Your task to perform on an android device: set the timer Image 0: 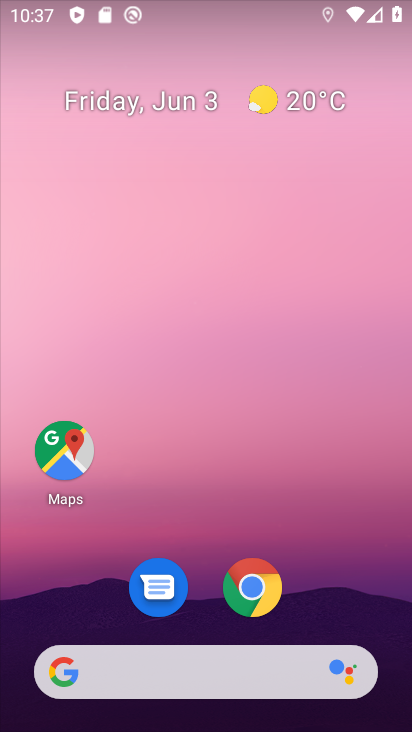
Step 0: drag from (279, 134) to (249, 32)
Your task to perform on an android device: set the timer Image 1: 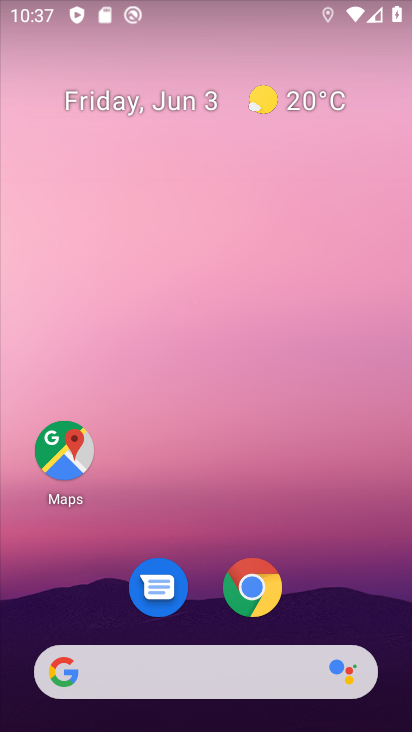
Step 1: drag from (308, 529) to (139, 11)
Your task to perform on an android device: set the timer Image 2: 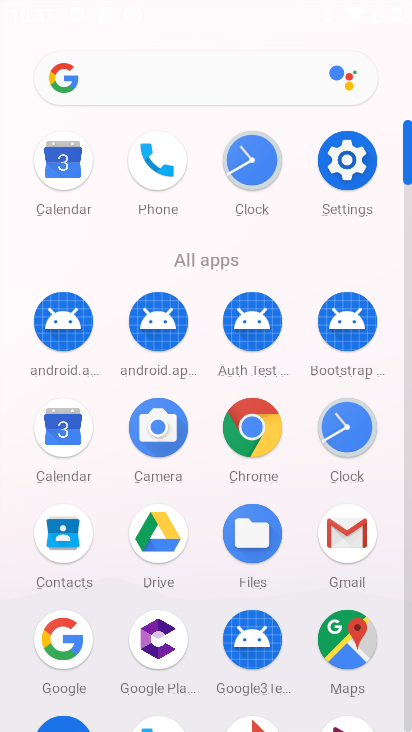
Step 2: click (256, 141)
Your task to perform on an android device: set the timer Image 3: 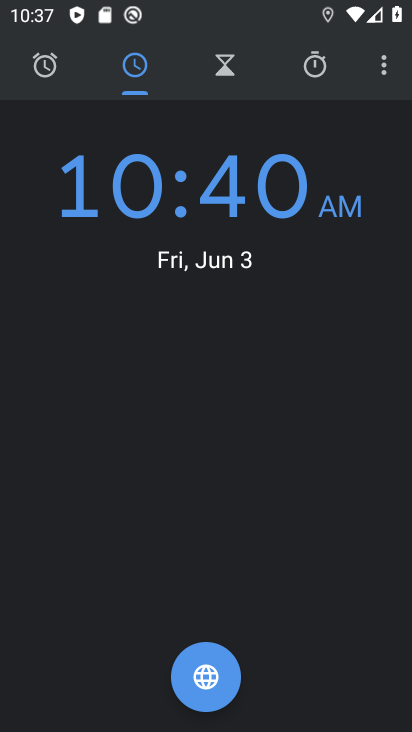
Step 3: click (236, 63)
Your task to perform on an android device: set the timer Image 4: 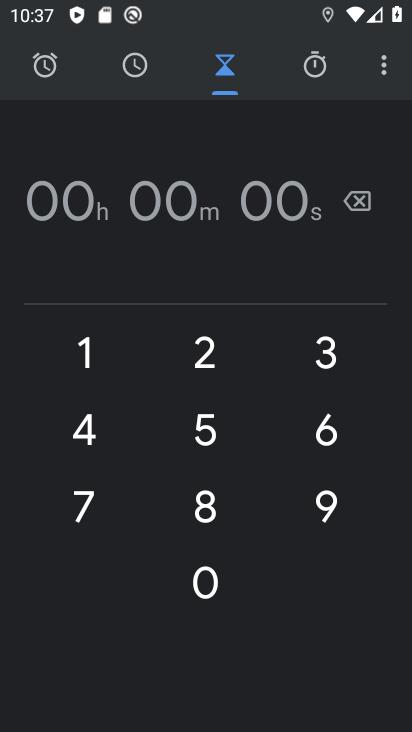
Step 4: click (100, 336)
Your task to perform on an android device: set the timer Image 5: 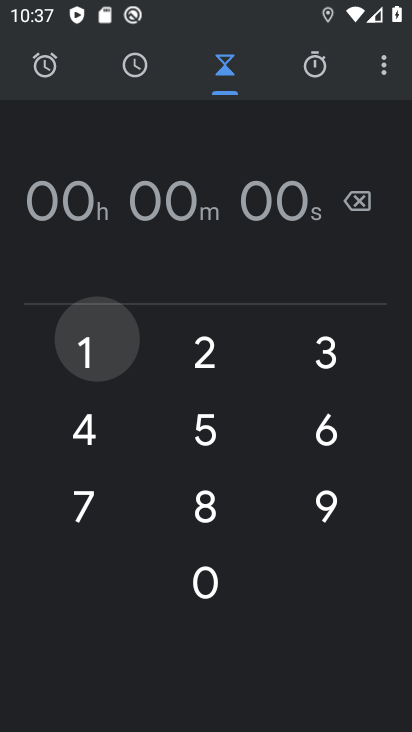
Step 5: click (98, 337)
Your task to perform on an android device: set the timer Image 6: 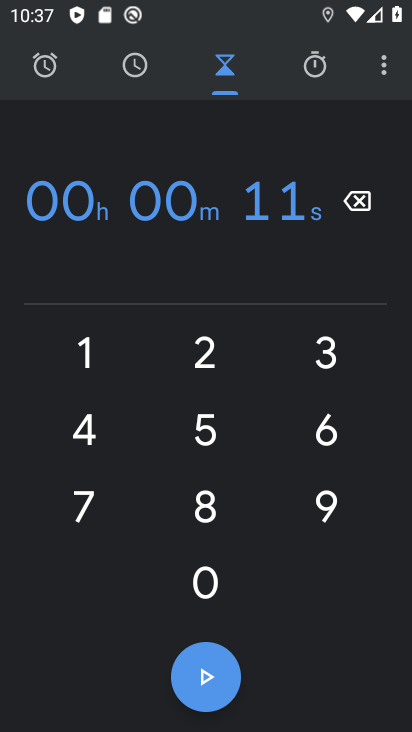
Step 6: click (96, 336)
Your task to perform on an android device: set the timer Image 7: 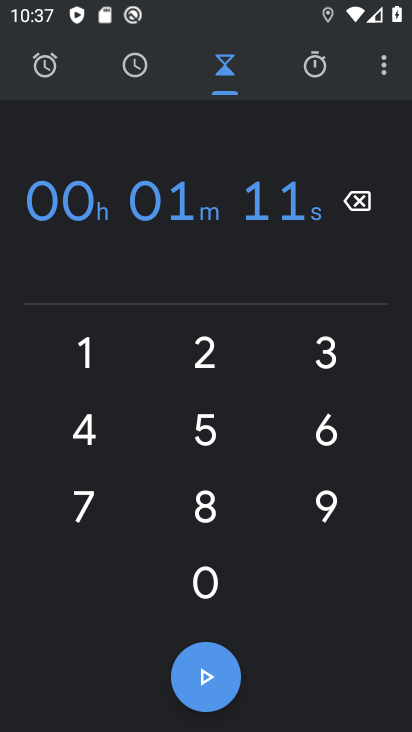
Step 7: click (95, 335)
Your task to perform on an android device: set the timer Image 8: 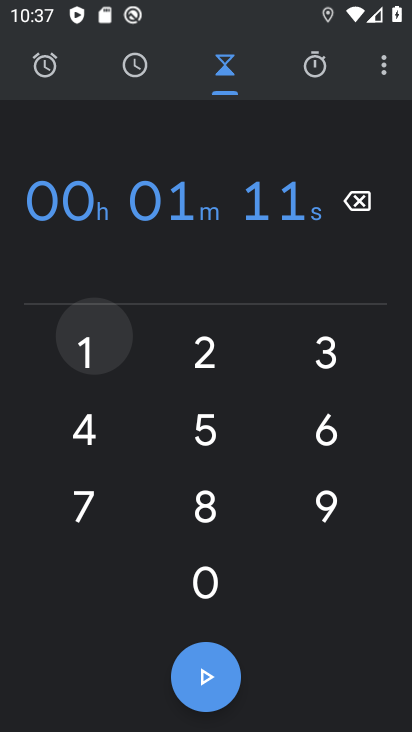
Step 8: click (95, 335)
Your task to perform on an android device: set the timer Image 9: 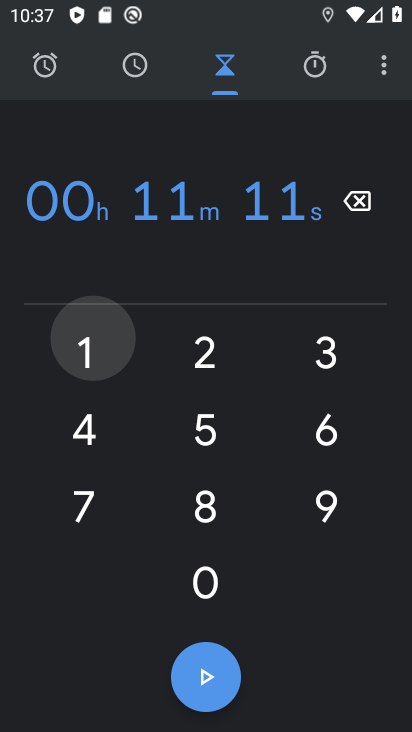
Step 9: click (95, 335)
Your task to perform on an android device: set the timer Image 10: 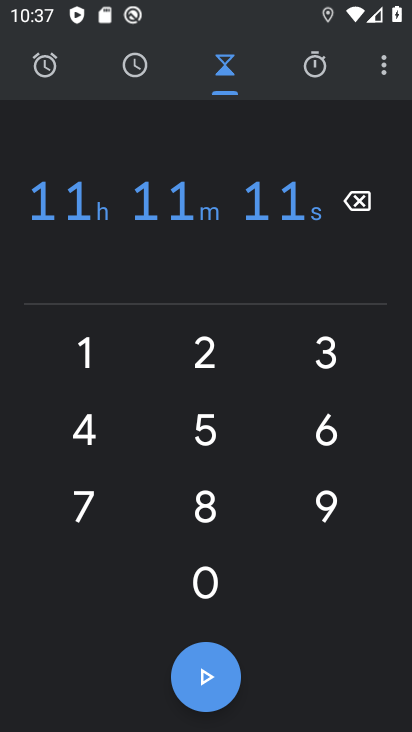
Step 10: click (95, 335)
Your task to perform on an android device: set the timer Image 11: 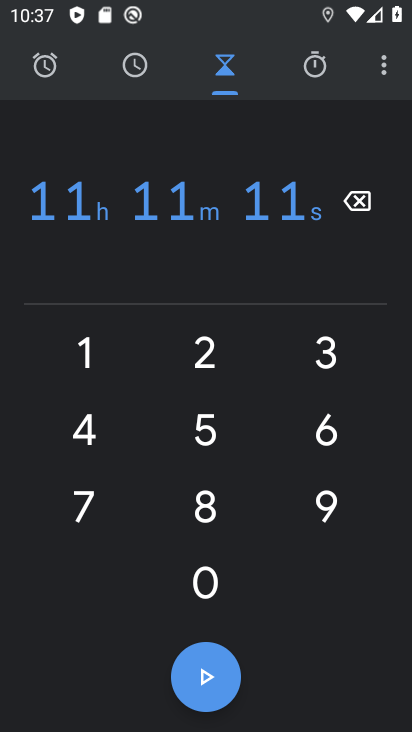
Step 11: click (194, 665)
Your task to perform on an android device: set the timer Image 12: 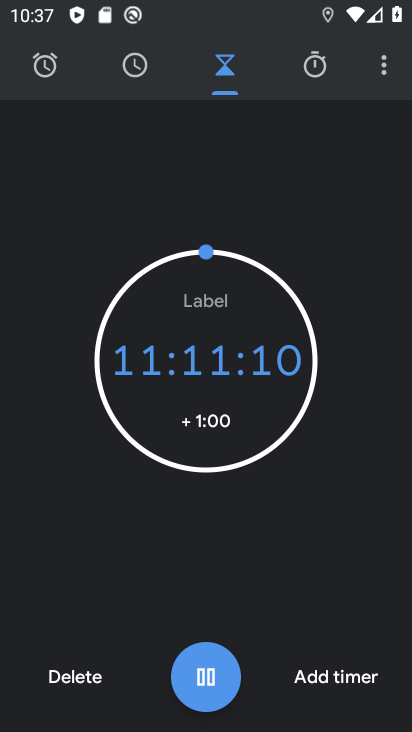
Step 12: task complete